Your task to perform on an android device: Open network settings Image 0: 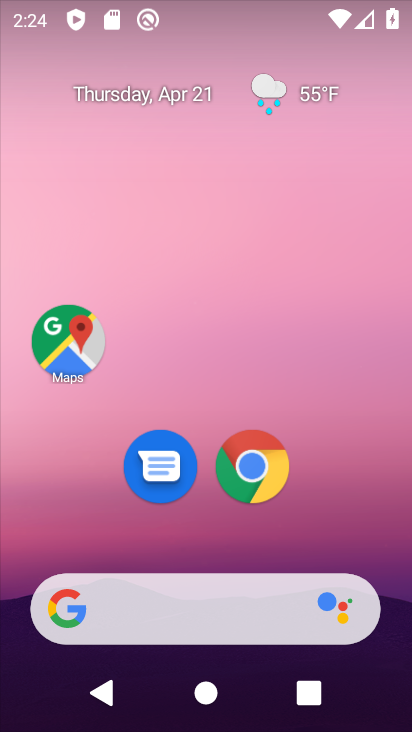
Step 0: drag from (332, 530) to (321, 4)
Your task to perform on an android device: Open network settings Image 1: 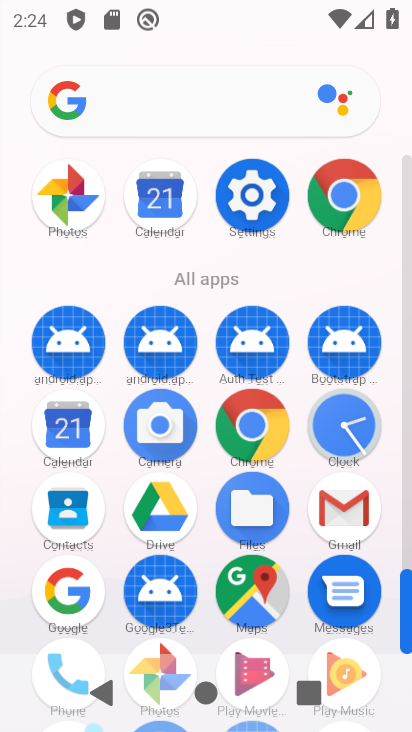
Step 1: drag from (293, 629) to (298, 268)
Your task to perform on an android device: Open network settings Image 2: 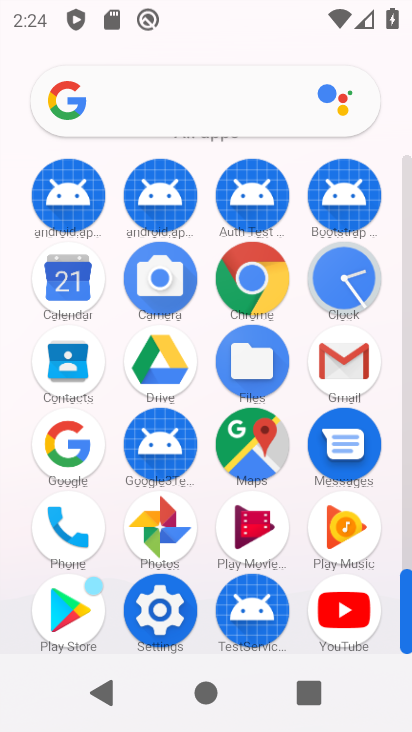
Step 2: click (176, 615)
Your task to perform on an android device: Open network settings Image 3: 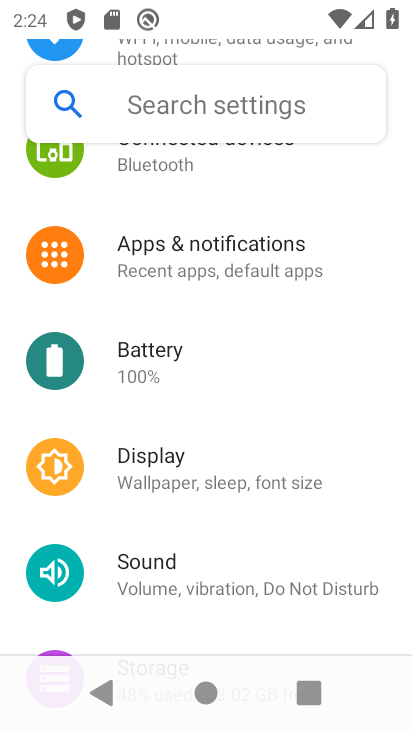
Step 3: drag from (214, 210) to (241, 641)
Your task to perform on an android device: Open network settings Image 4: 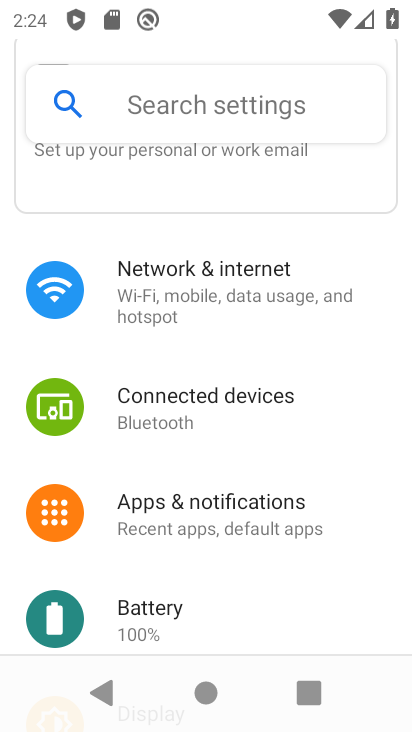
Step 4: click (228, 272)
Your task to perform on an android device: Open network settings Image 5: 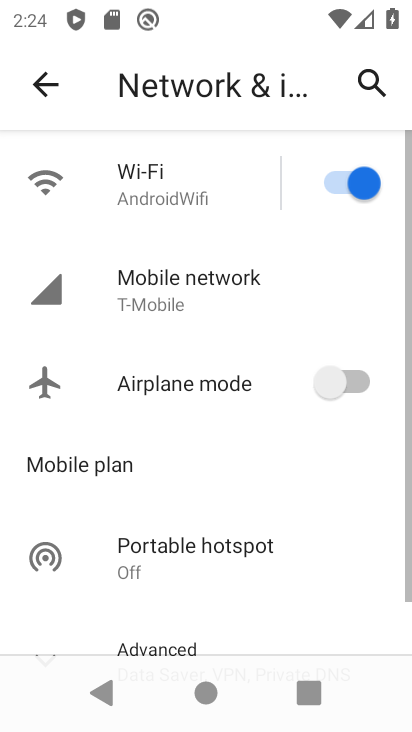
Step 5: click (228, 272)
Your task to perform on an android device: Open network settings Image 6: 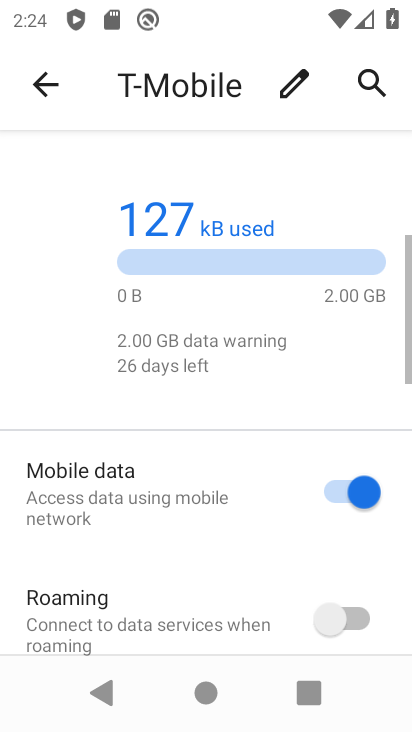
Step 6: task complete